Your task to perform on an android device: turn off javascript in the chrome app Image 0: 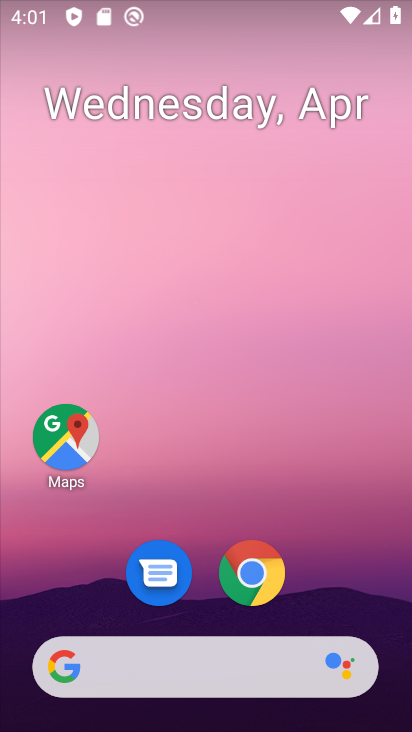
Step 0: click (261, 568)
Your task to perform on an android device: turn off javascript in the chrome app Image 1: 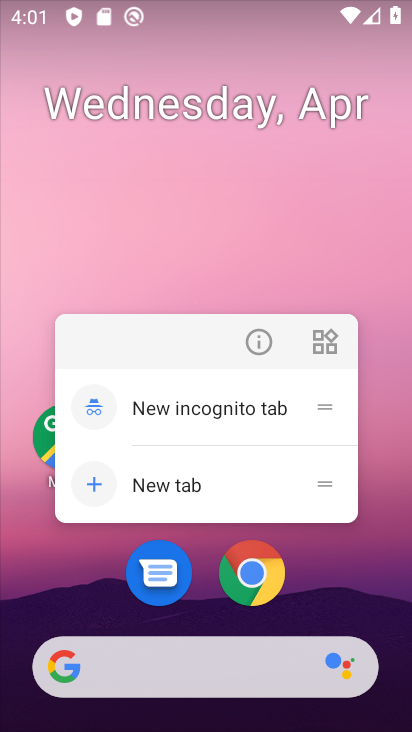
Step 1: click (253, 582)
Your task to perform on an android device: turn off javascript in the chrome app Image 2: 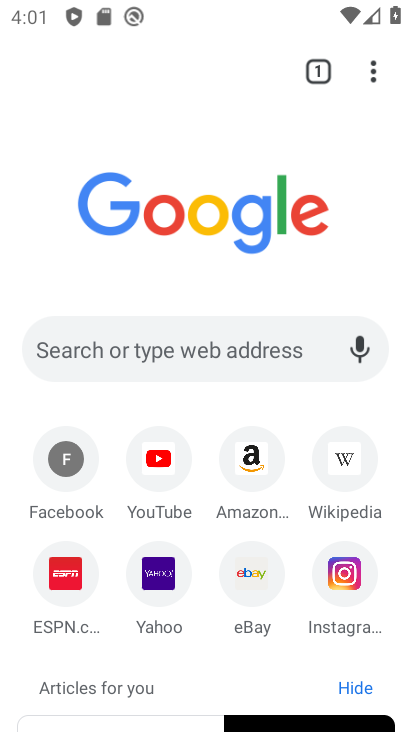
Step 2: click (377, 74)
Your task to perform on an android device: turn off javascript in the chrome app Image 3: 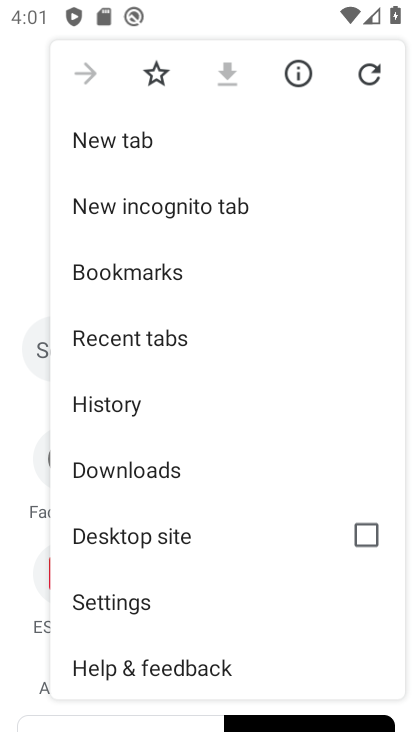
Step 3: click (133, 612)
Your task to perform on an android device: turn off javascript in the chrome app Image 4: 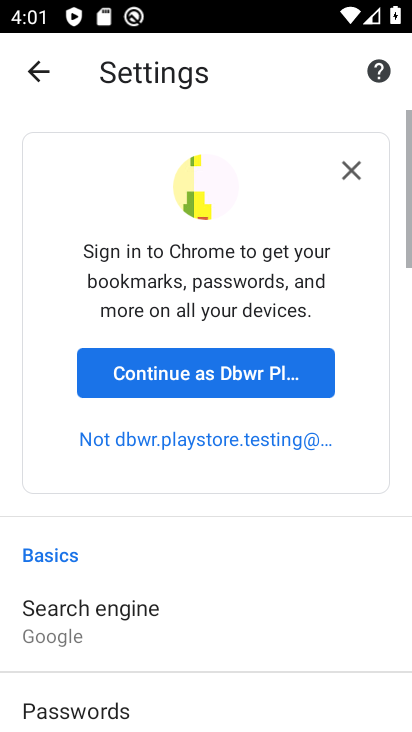
Step 4: drag from (175, 613) to (180, 193)
Your task to perform on an android device: turn off javascript in the chrome app Image 5: 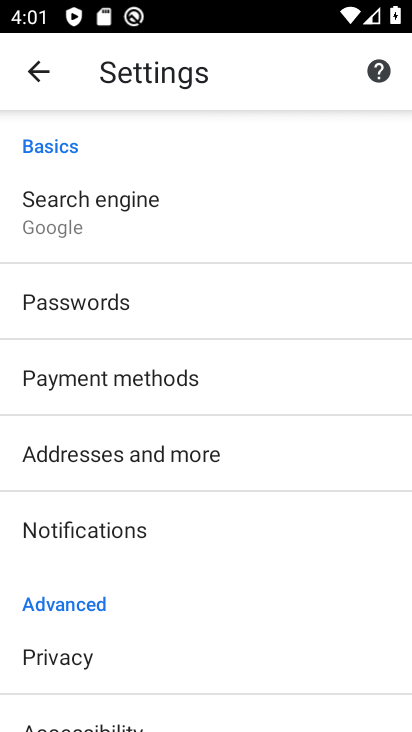
Step 5: drag from (190, 567) to (183, 239)
Your task to perform on an android device: turn off javascript in the chrome app Image 6: 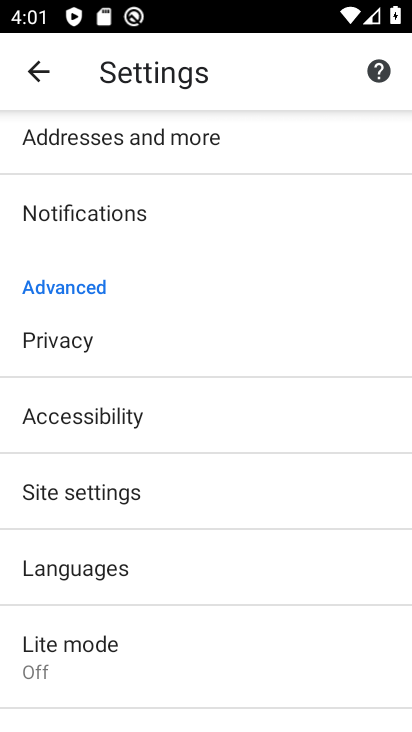
Step 6: click (87, 493)
Your task to perform on an android device: turn off javascript in the chrome app Image 7: 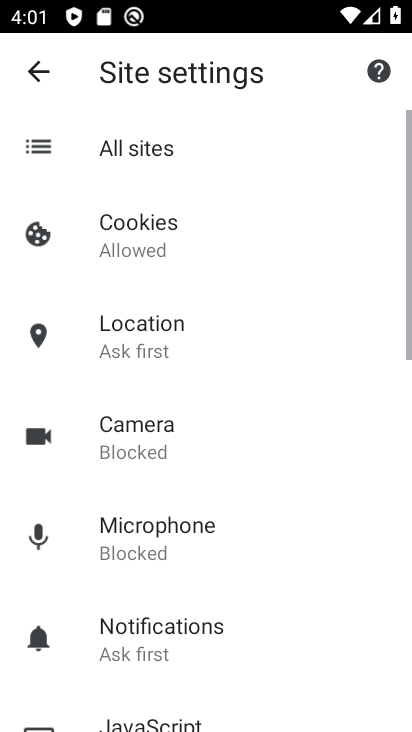
Step 7: drag from (251, 533) to (251, 340)
Your task to perform on an android device: turn off javascript in the chrome app Image 8: 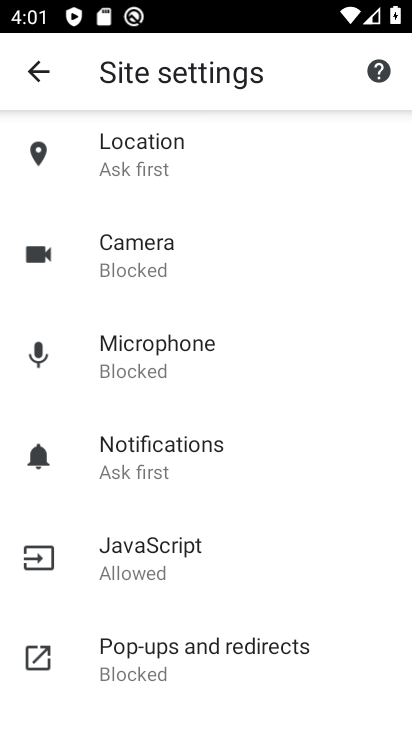
Step 8: click (162, 550)
Your task to perform on an android device: turn off javascript in the chrome app Image 9: 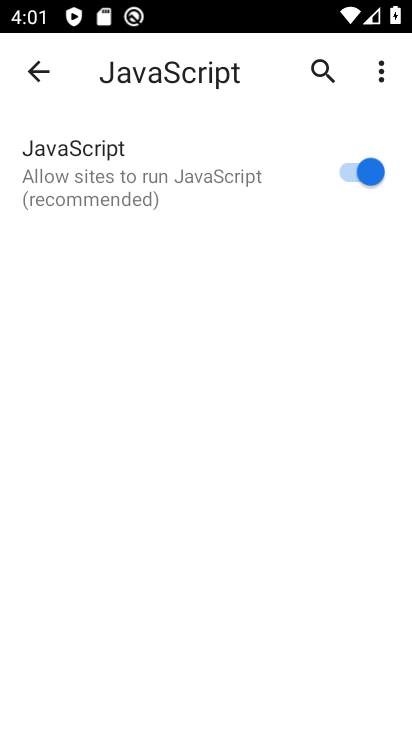
Step 9: click (364, 178)
Your task to perform on an android device: turn off javascript in the chrome app Image 10: 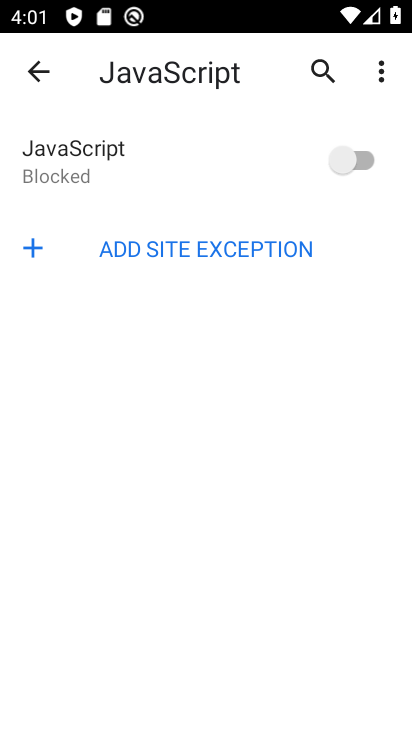
Step 10: task complete